Your task to perform on an android device: What's on my calendar today? Image 0: 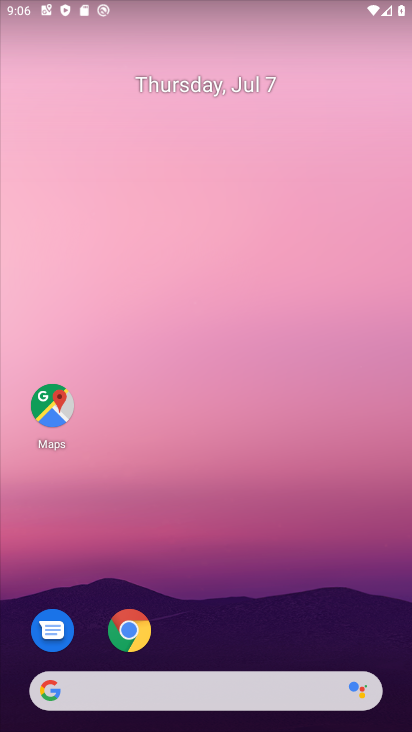
Step 0: drag from (209, 623) to (212, 257)
Your task to perform on an android device: What's on my calendar today? Image 1: 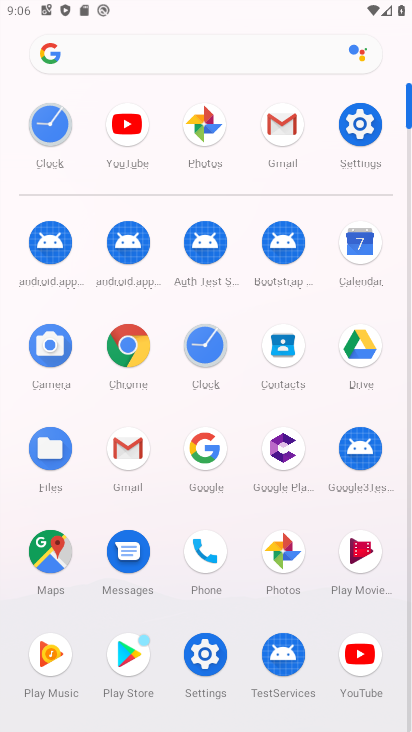
Step 1: click (353, 265)
Your task to perform on an android device: What's on my calendar today? Image 2: 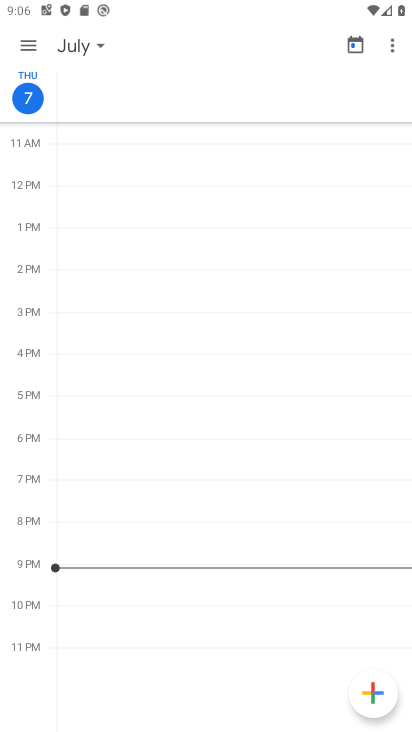
Step 2: click (99, 50)
Your task to perform on an android device: What's on my calendar today? Image 3: 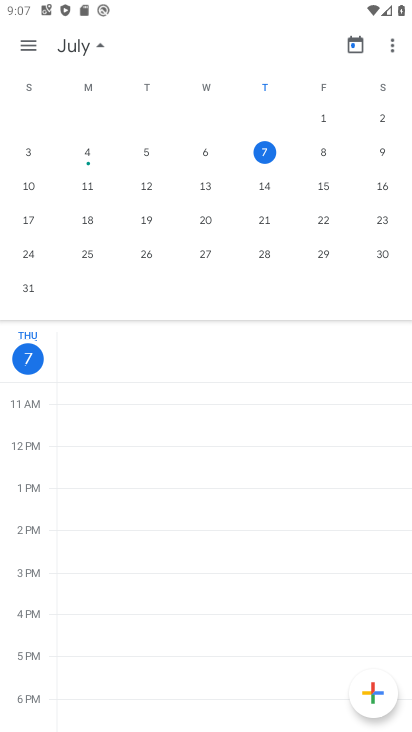
Step 3: click (257, 143)
Your task to perform on an android device: What's on my calendar today? Image 4: 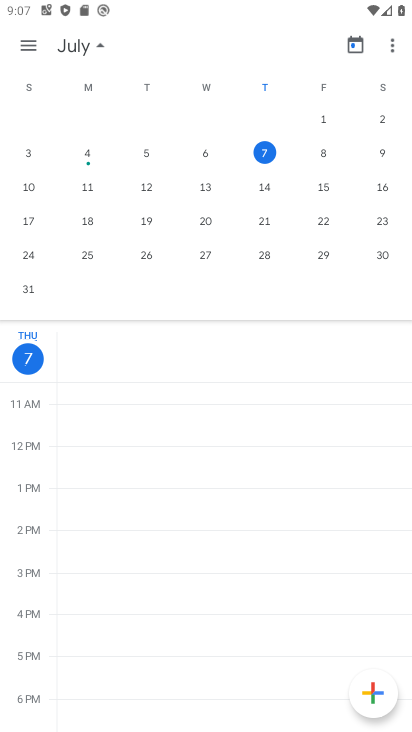
Step 4: task complete